Your task to perform on an android device: Do I have any events tomorrow? Image 0: 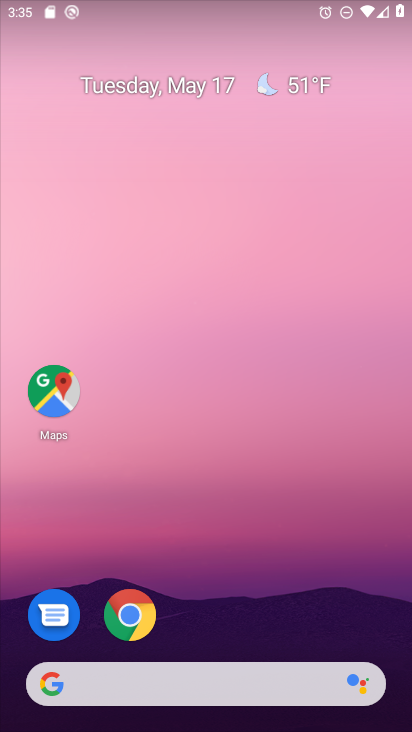
Step 0: drag from (220, 635) to (223, 47)
Your task to perform on an android device: Do I have any events tomorrow? Image 1: 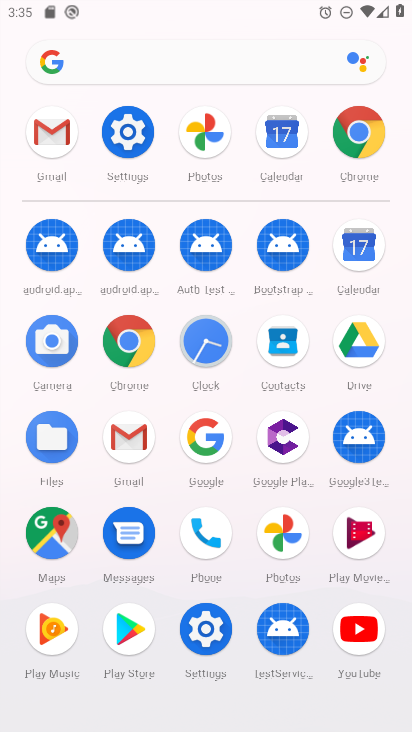
Step 1: click (358, 244)
Your task to perform on an android device: Do I have any events tomorrow? Image 2: 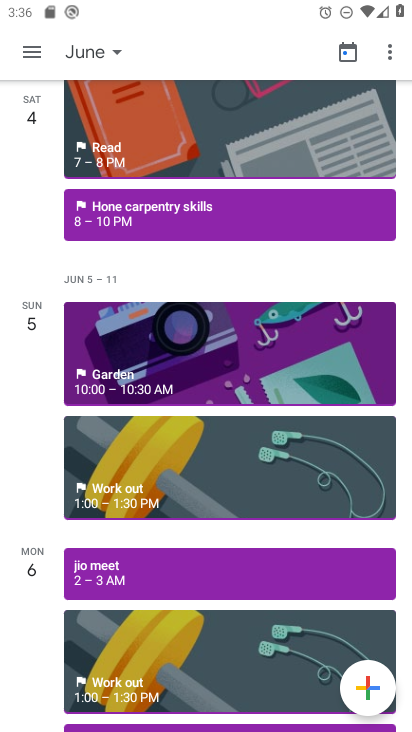
Step 2: drag from (37, 633) to (73, 114)
Your task to perform on an android device: Do I have any events tomorrow? Image 3: 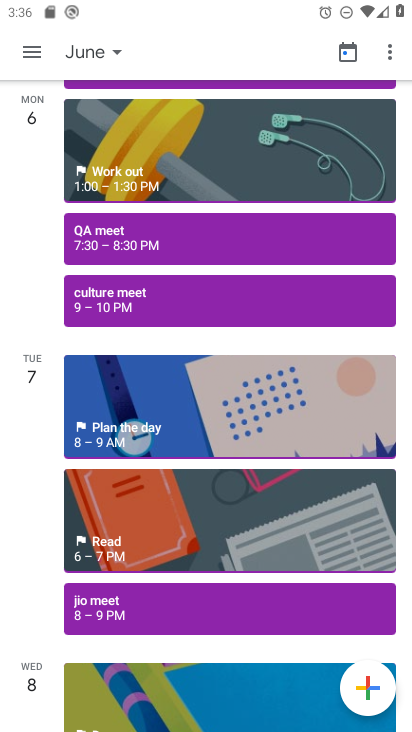
Step 3: click (117, 56)
Your task to perform on an android device: Do I have any events tomorrow? Image 4: 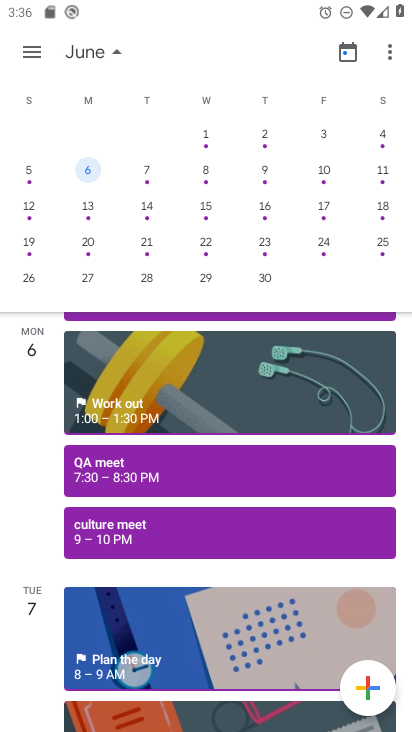
Step 4: drag from (34, 211) to (388, 212)
Your task to perform on an android device: Do I have any events tomorrow? Image 5: 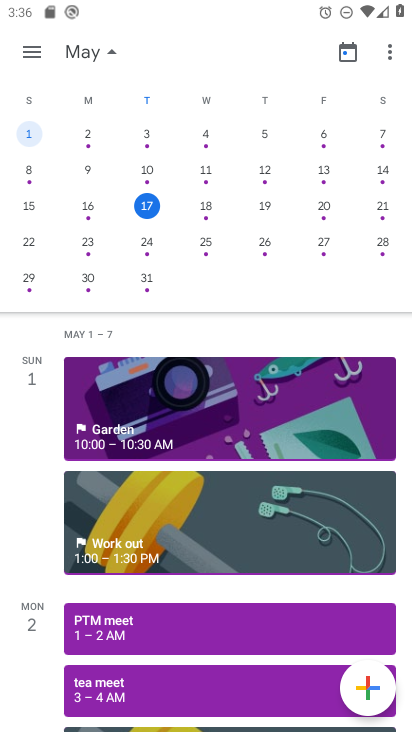
Step 5: click (197, 204)
Your task to perform on an android device: Do I have any events tomorrow? Image 6: 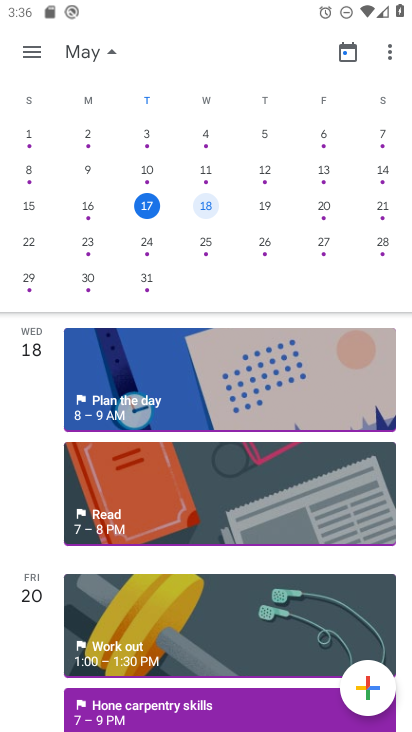
Step 6: click (100, 48)
Your task to perform on an android device: Do I have any events tomorrow? Image 7: 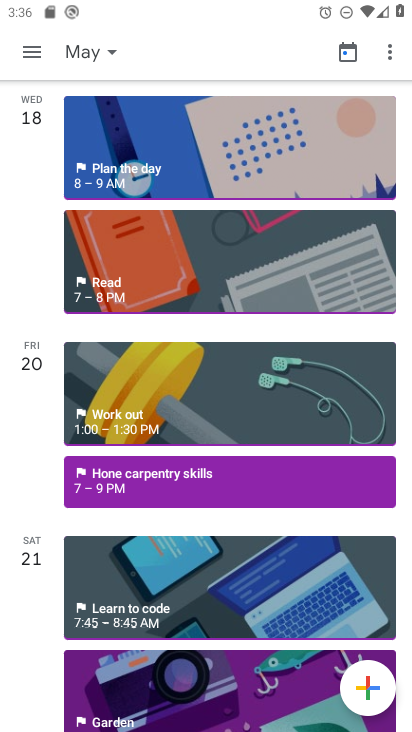
Step 7: click (33, 146)
Your task to perform on an android device: Do I have any events tomorrow? Image 8: 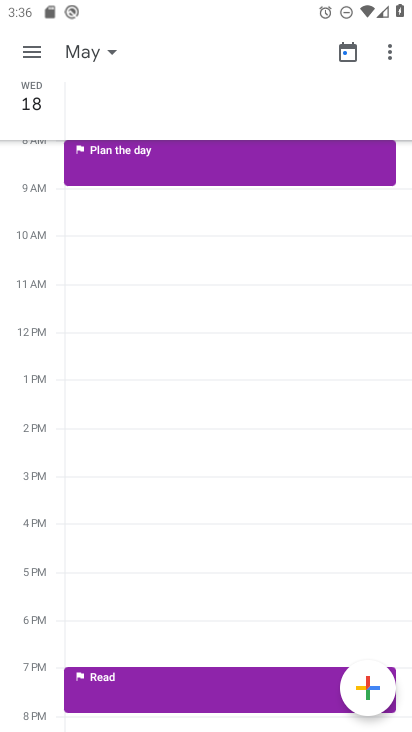
Step 8: task complete